Your task to perform on an android device: Add "logitech g502" to the cart on ebay.com Image 0: 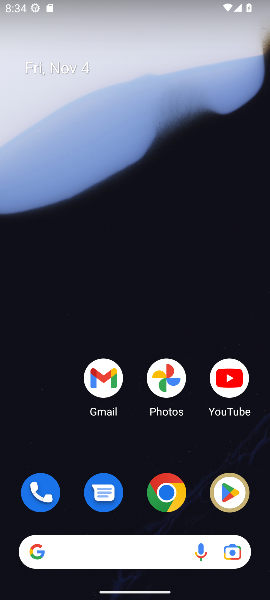
Step 0: drag from (125, 445) to (139, 71)
Your task to perform on an android device: Add "logitech g502" to the cart on ebay.com Image 1: 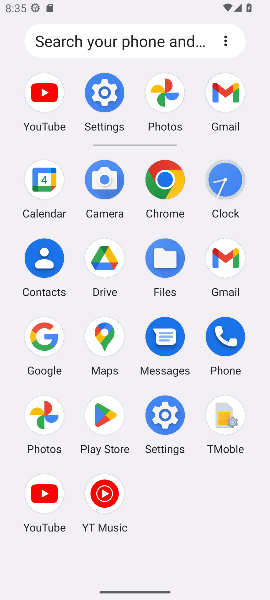
Step 1: click (166, 179)
Your task to perform on an android device: Add "logitech g502" to the cart on ebay.com Image 2: 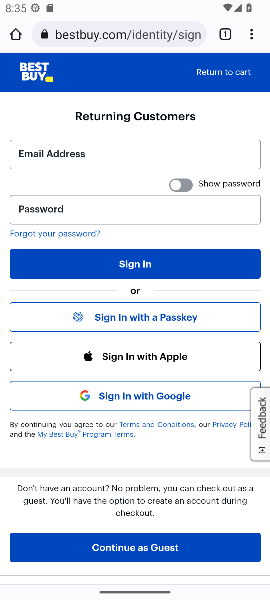
Step 2: click (157, 33)
Your task to perform on an android device: Add "logitech g502" to the cart on ebay.com Image 3: 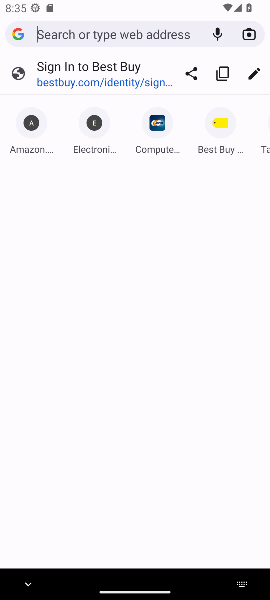
Step 3: type "ebay.com"
Your task to perform on an android device: Add "logitech g502" to the cart on ebay.com Image 4: 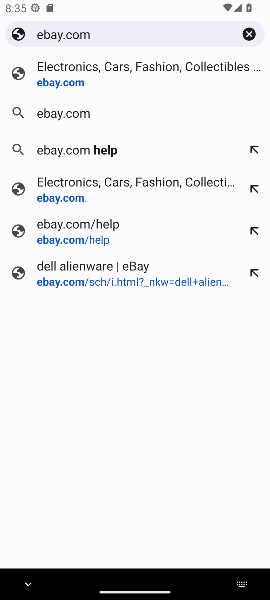
Step 4: press enter
Your task to perform on an android device: Add "logitech g502" to the cart on ebay.com Image 5: 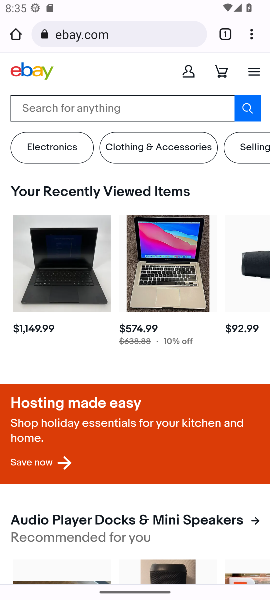
Step 5: click (149, 114)
Your task to perform on an android device: Add "logitech g502" to the cart on ebay.com Image 6: 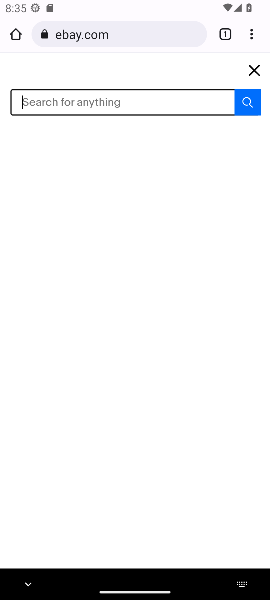
Step 6: type "logitech g503"
Your task to perform on an android device: Add "logitech g502" to the cart on ebay.com Image 7: 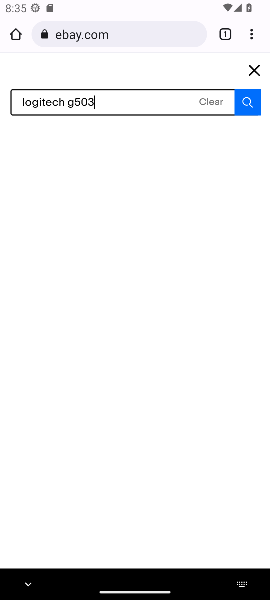
Step 7: click (107, 99)
Your task to perform on an android device: Add "logitech g502" to the cart on ebay.com Image 8: 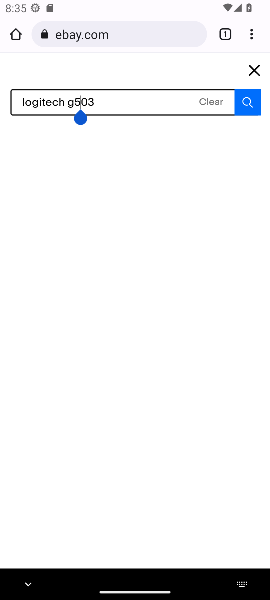
Step 8: click (95, 102)
Your task to perform on an android device: Add "logitech g502" to the cart on ebay.com Image 9: 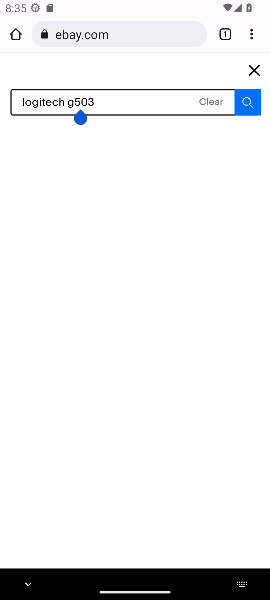
Step 9: click (96, 100)
Your task to perform on an android device: Add "logitech g502" to the cart on ebay.com Image 10: 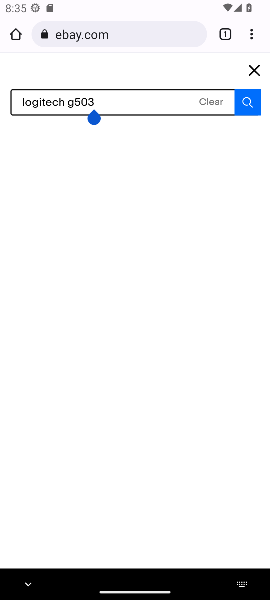
Step 10: click (202, 101)
Your task to perform on an android device: Add "logitech g502" to the cart on ebay.com Image 11: 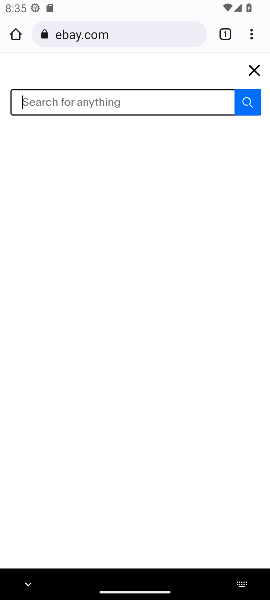
Step 11: type "logitech g502"
Your task to perform on an android device: Add "logitech g502" to the cart on ebay.com Image 12: 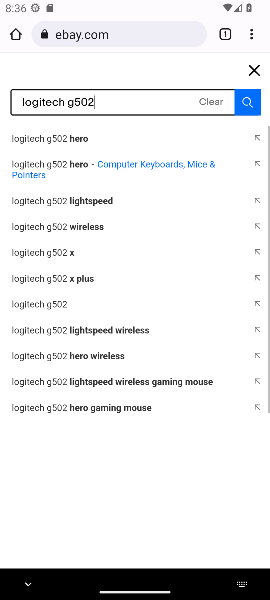
Step 12: press enter
Your task to perform on an android device: Add "logitech g502" to the cart on ebay.com Image 13: 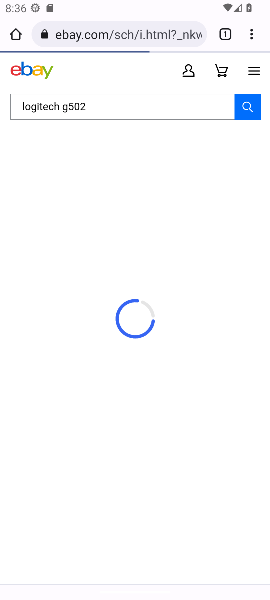
Step 13: press enter
Your task to perform on an android device: Add "logitech g502" to the cart on ebay.com Image 14: 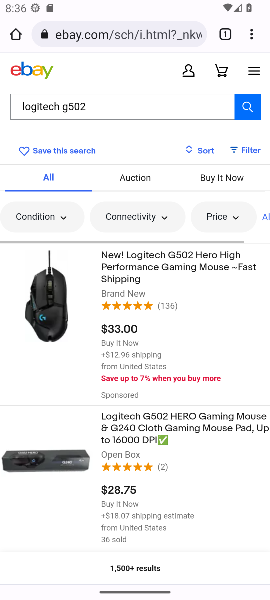
Step 14: click (128, 261)
Your task to perform on an android device: Add "logitech g502" to the cart on ebay.com Image 15: 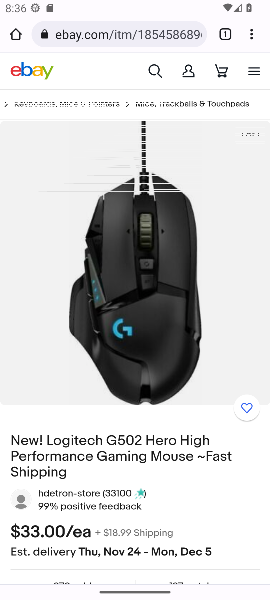
Step 15: drag from (190, 415) to (197, 20)
Your task to perform on an android device: Add "logitech g502" to the cart on ebay.com Image 16: 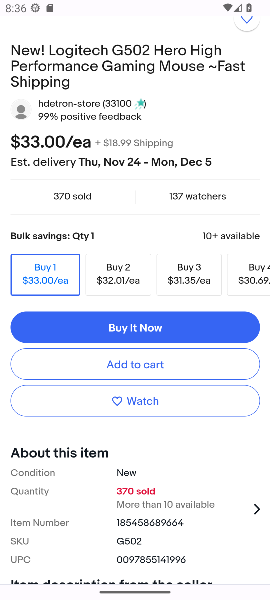
Step 16: click (193, 366)
Your task to perform on an android device: Add "logitech g502" to the cart on ebay.com Image 17: 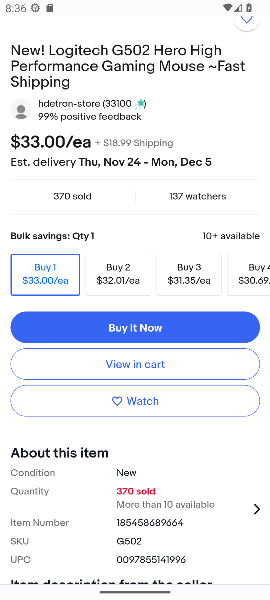
Step 17: task complete